Your task to perform on an android device: Go to Maps Image 0: 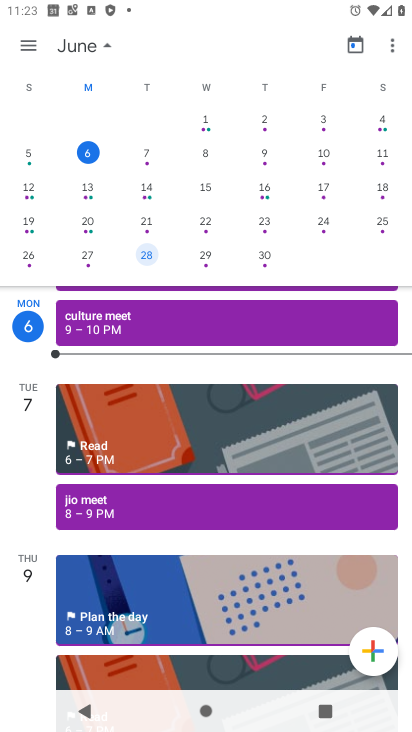
Step 0: press home button
Your task to perform on an android device: Go to Maps Image 1: 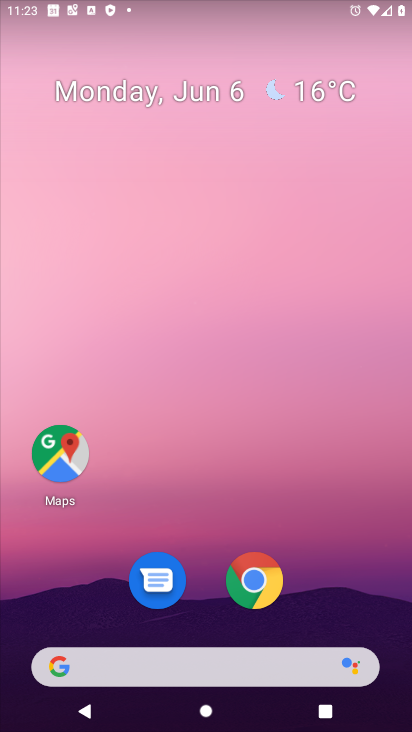
Step 1: drag from (342, 542) to (137, 16)
Your task to perform on an android device: Go to Maps Image 2: 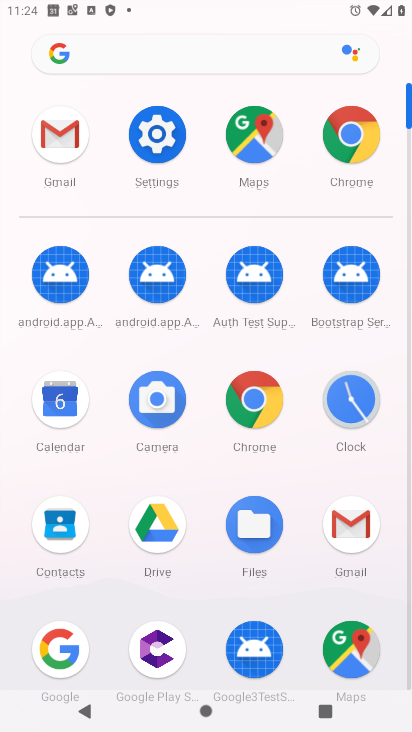
Step 2: click (357, 646)
Your task to perform on an android device: Go to Maps Image 3: 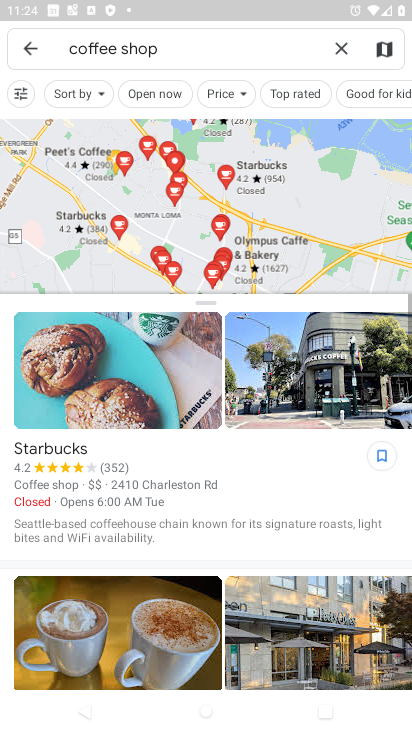
Step 3: task complete